Your task to perform on an android device: snooze an email in the gmail app Image 0: 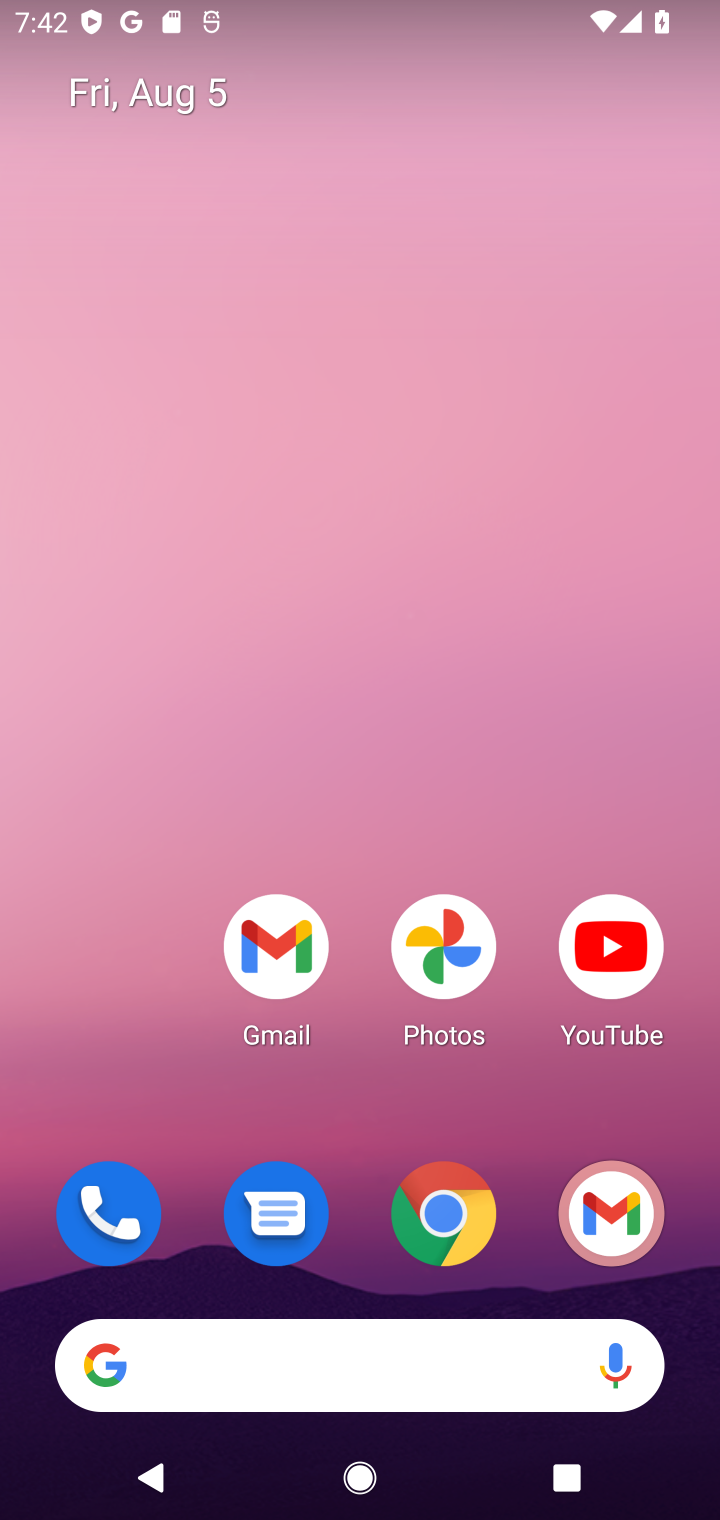
Step 0: drag from (362, 1222) to (387, 136)
Your task to perform on an android device: snooze an email in the gmail app Image 1: 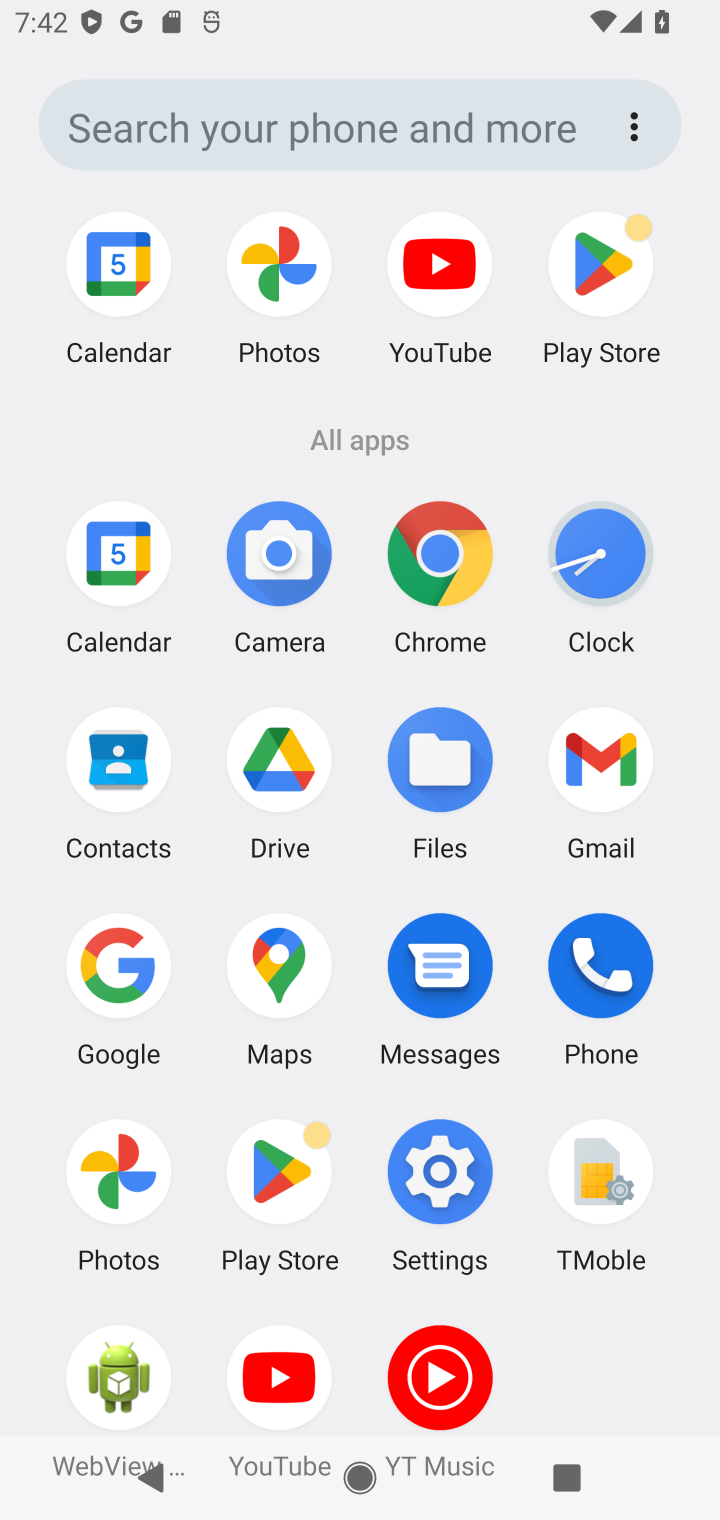
Step 1: click (581, 743)
Your task to perform on an android device: snooze an email in the gmail app Image 2: 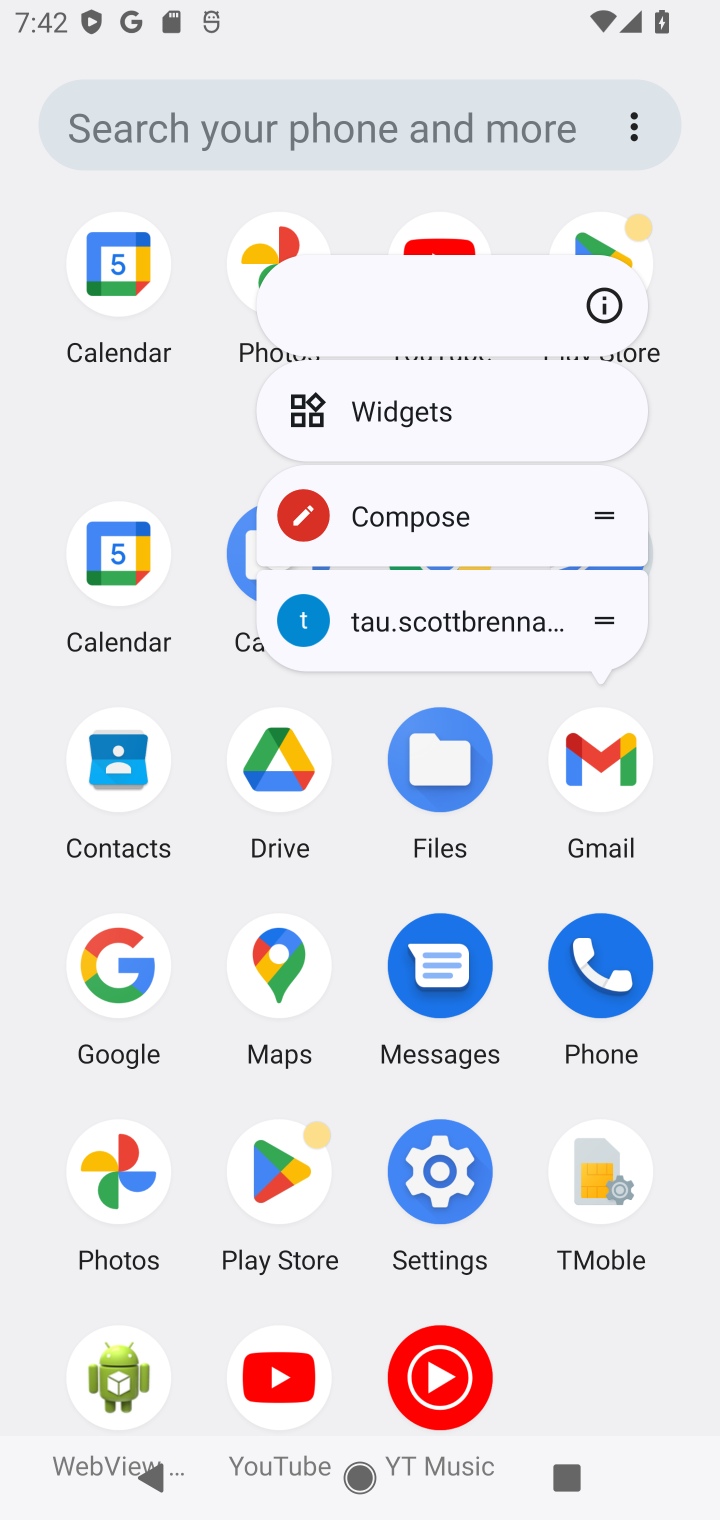
Step 2: click (625, 766)
Your task to perform on an android device: snooze an email in the gmail app Image 3: 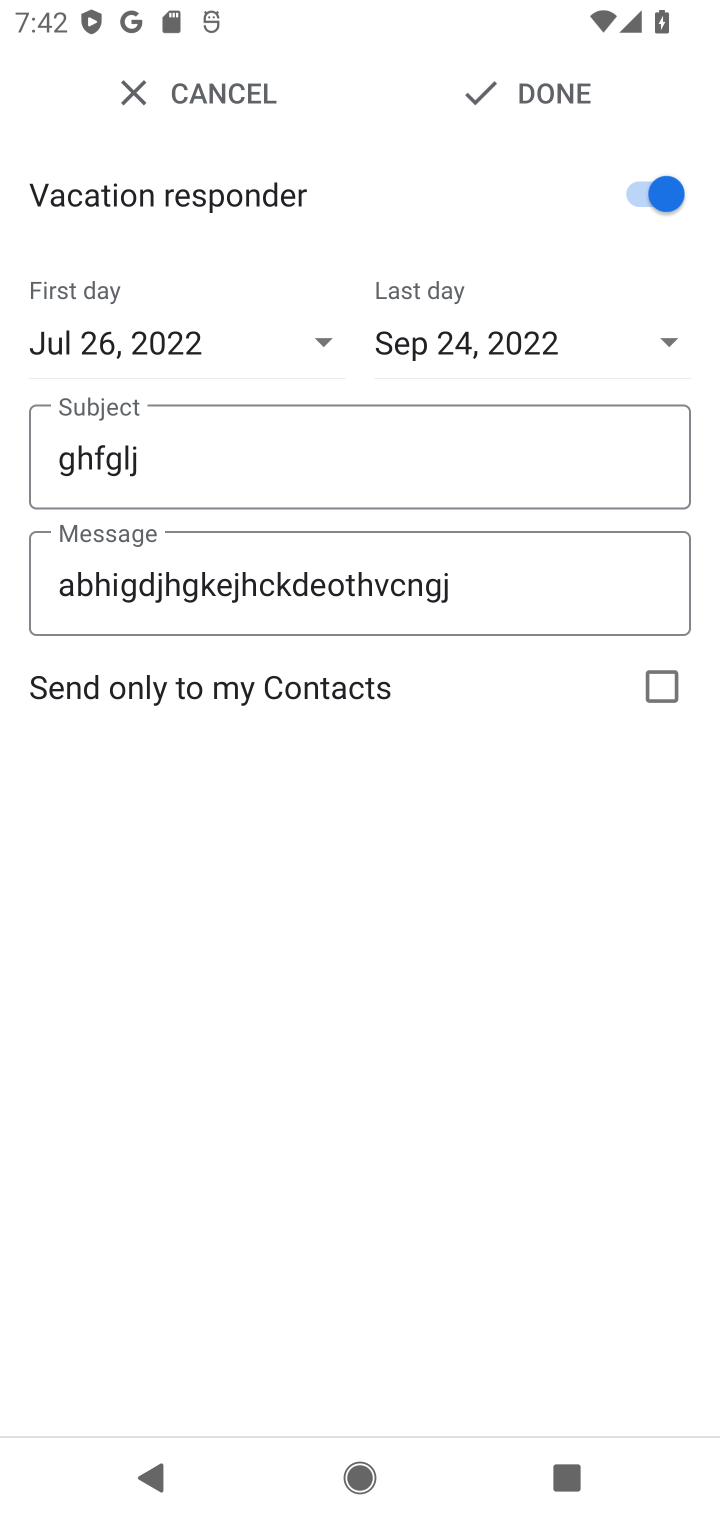
Step 3: click (150, 86)
Your task to perform on an android device: snooze an email in the gmail app Image 4: 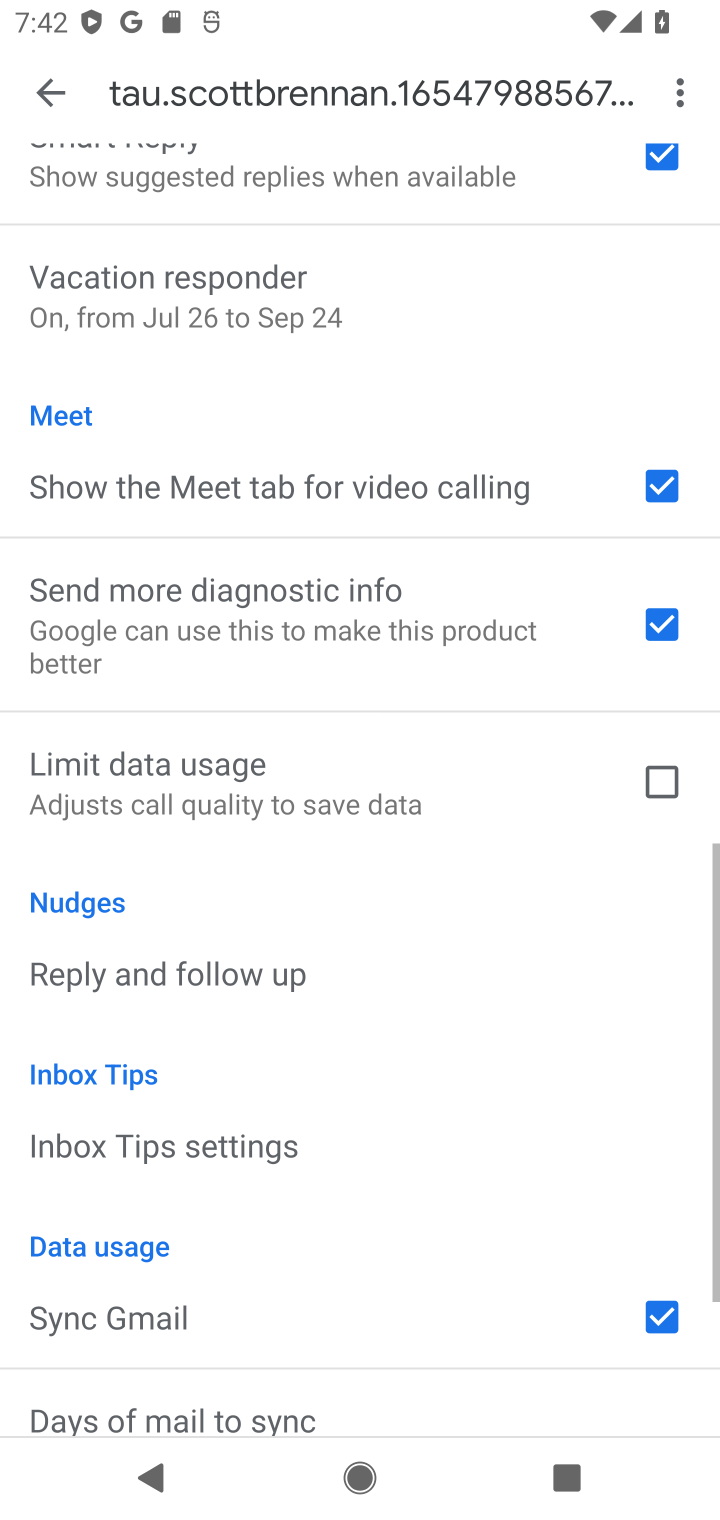
Step 4: click (57, 93)
Your task to perform on an android device: snooze an email in the gmail app Image 5: 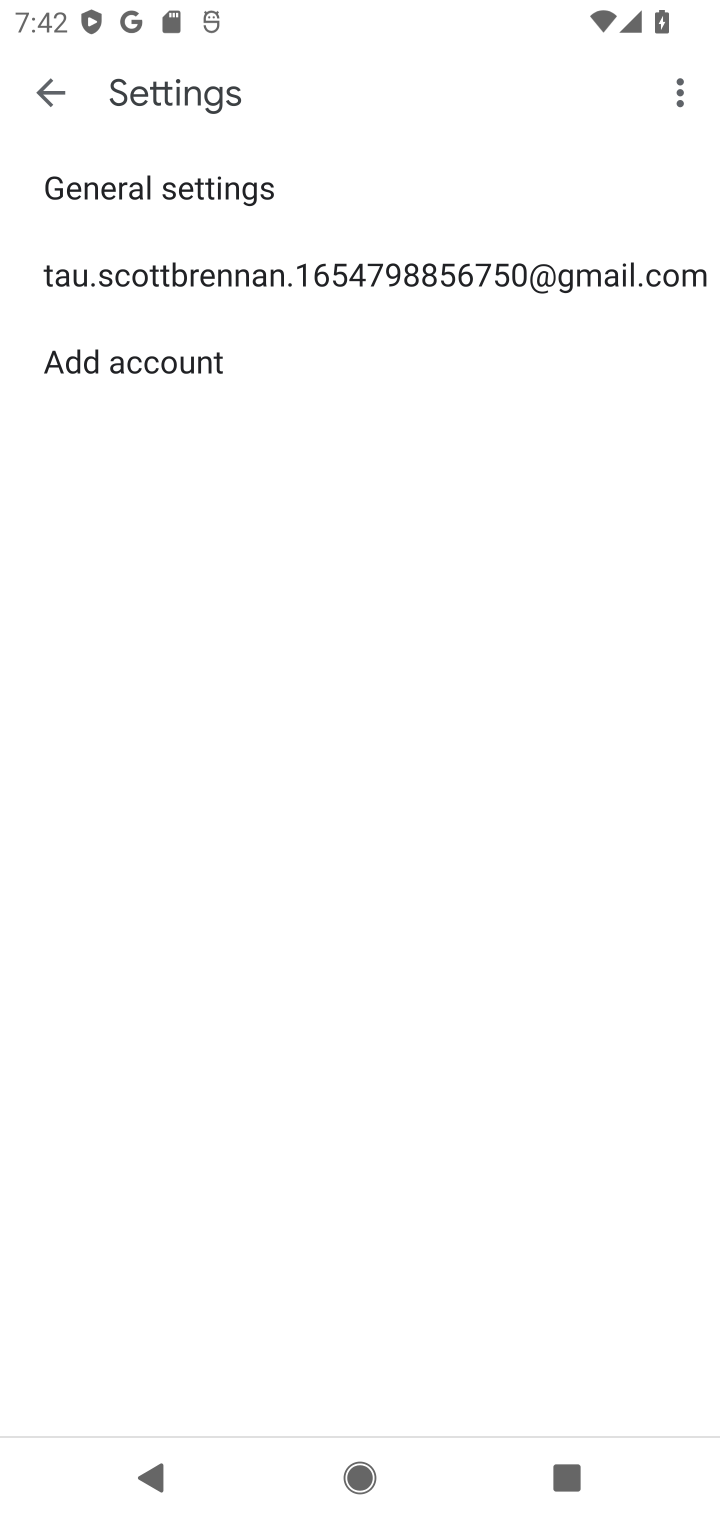
Step 5: click (60, 80)
Your task to perform on an android device: snooze an email in the gmail app Image 6: 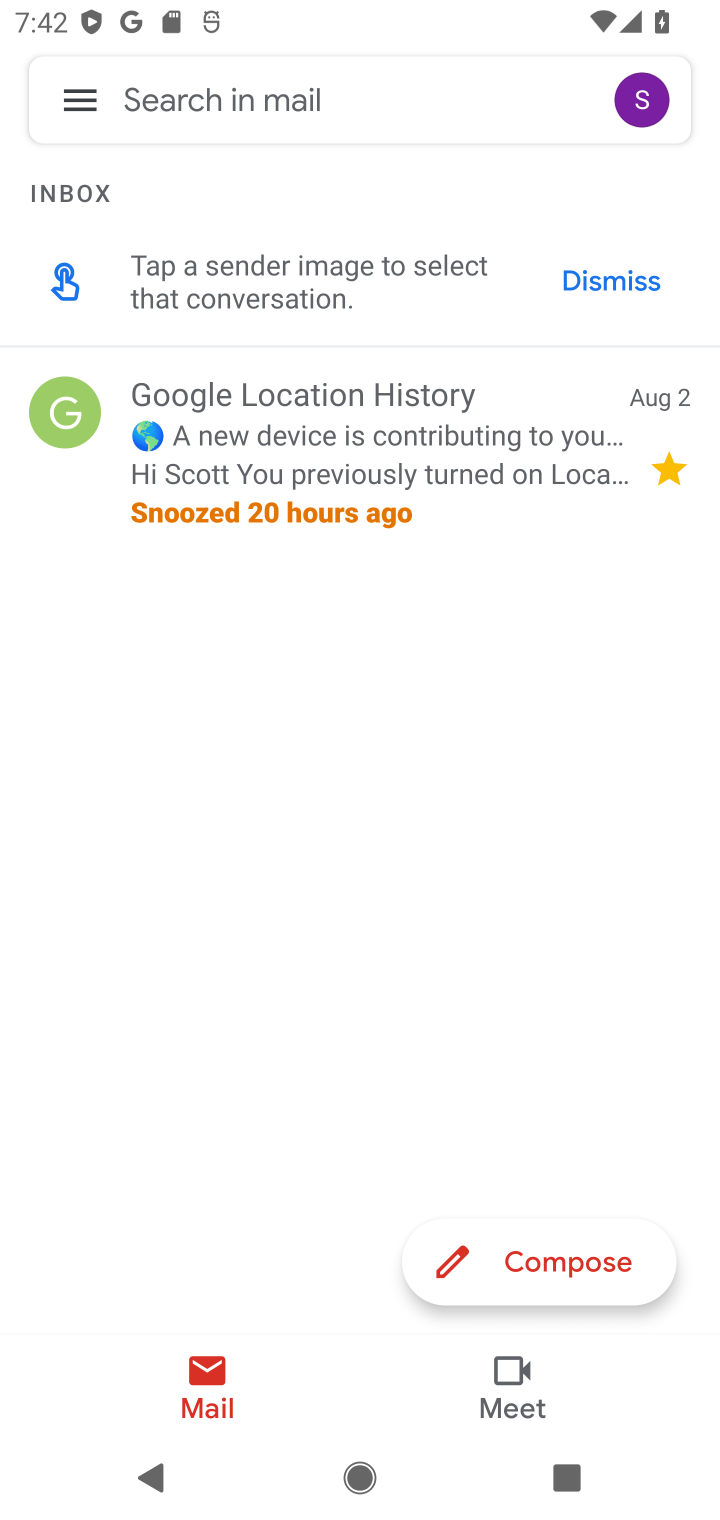
Step 6: click (56, 78)
Your task to perform on an android device: snooze an email in the gmail app Image 7: 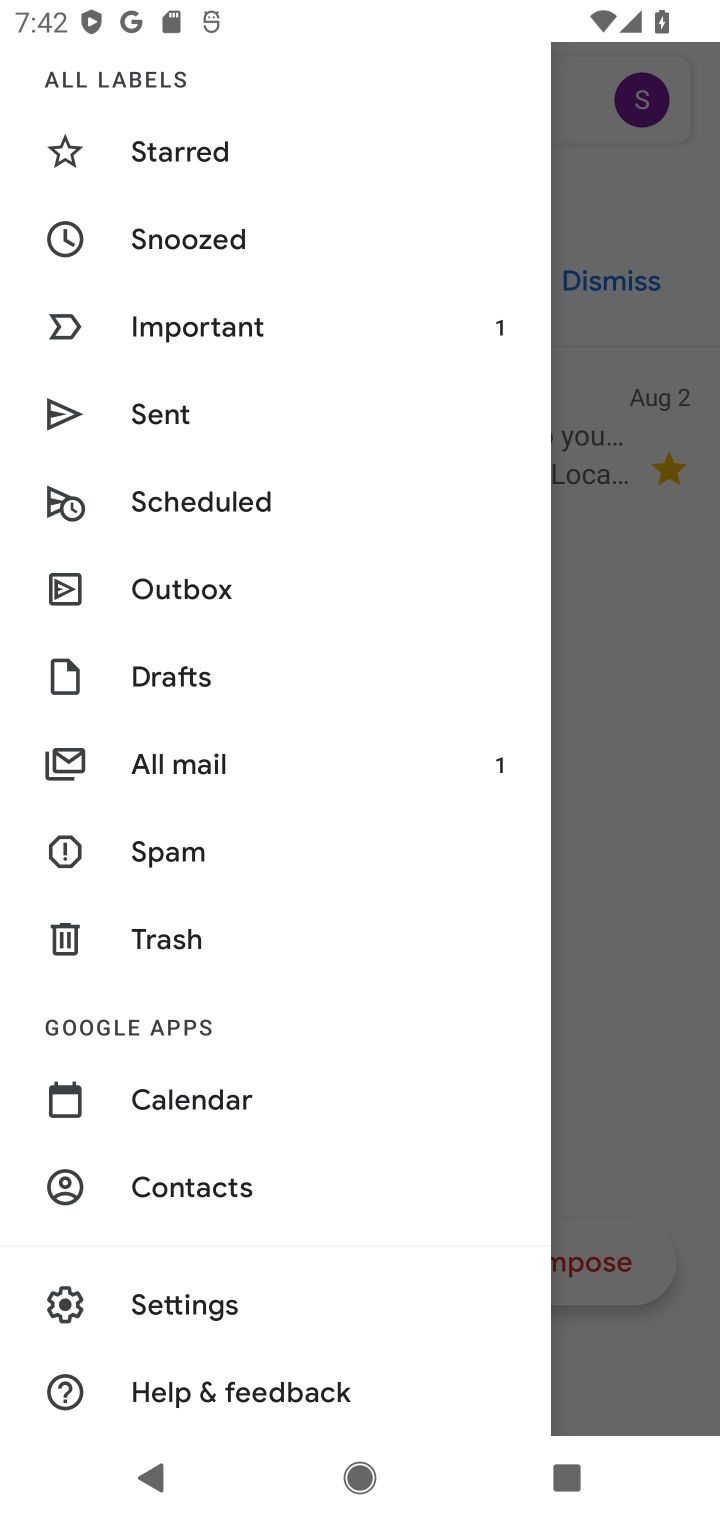
Step 7: click (229, 254)
Your task to perform on an android device: snooze an email in the gmail app Image 8: 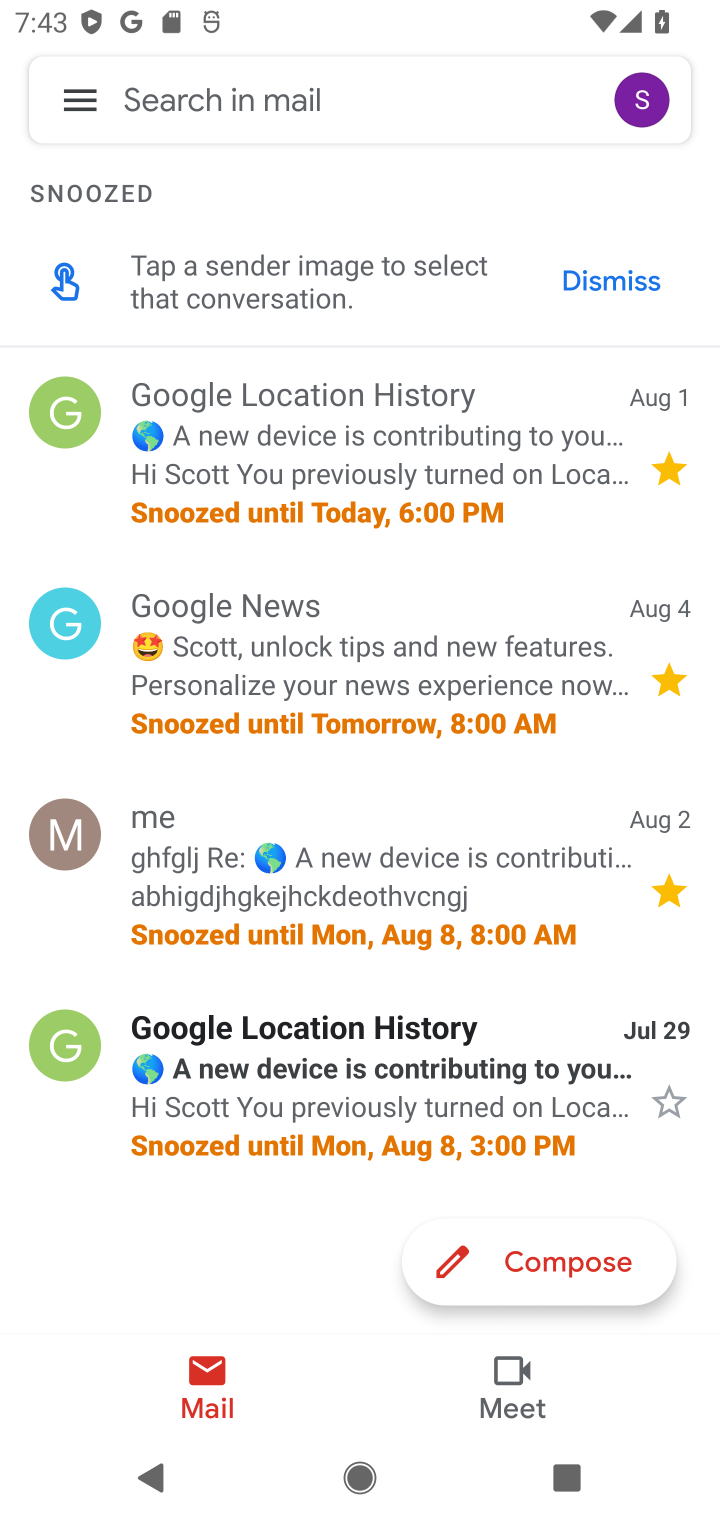
Step 8: task complete